Your task to perform on an android device: Open the map Image 0: 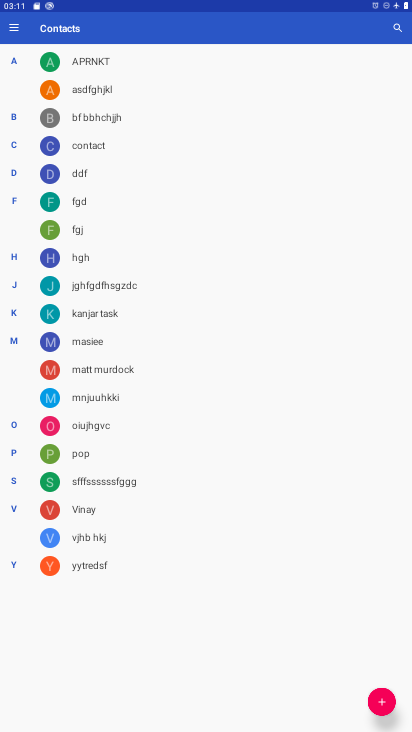
Step 0: press home button
Your task to perform on an android device: Open the map Image 1: 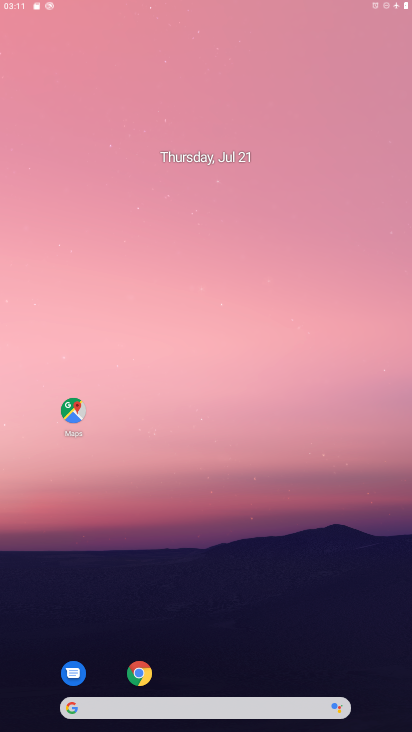
Step 1: drag from (216, 699) to (212, 290)
Your task to perform on an android device: Open the map Image 2: 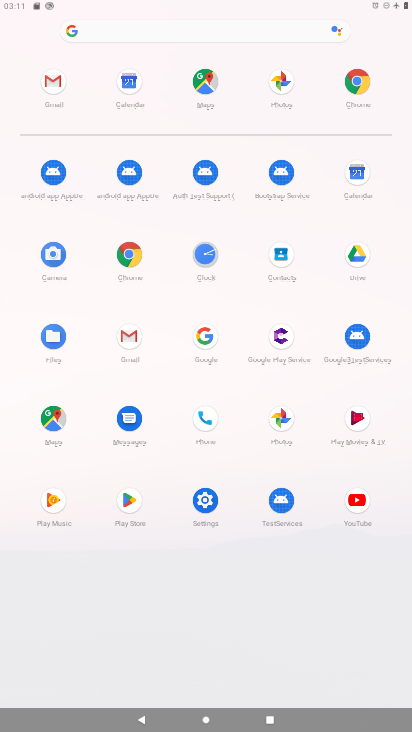
Step 2: click (61, 422)
Your task to perform on an android device: Open the map Image 3: 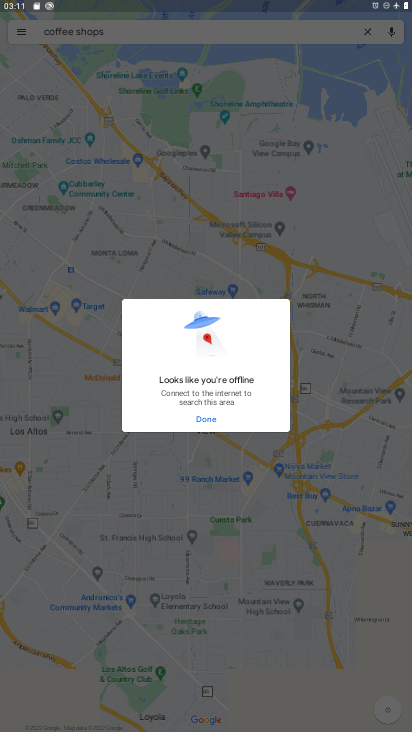
Step 3: click (204, 419)
Your task to perform on an android device: Open the map Image 4: 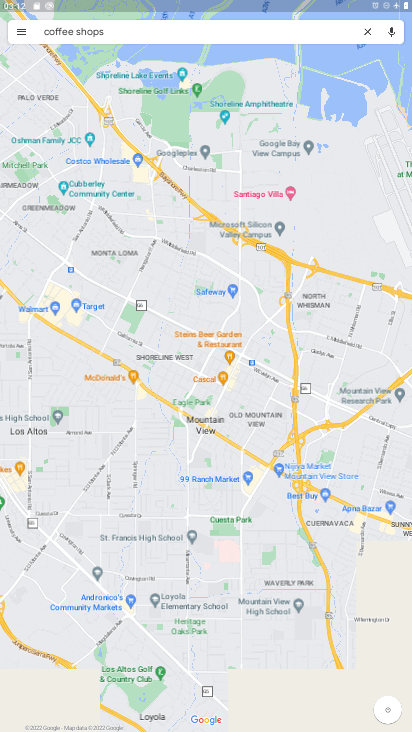
Step 4: task complete